Your task to perform on an android device: Open Chrome and go to the settings page Image 0: 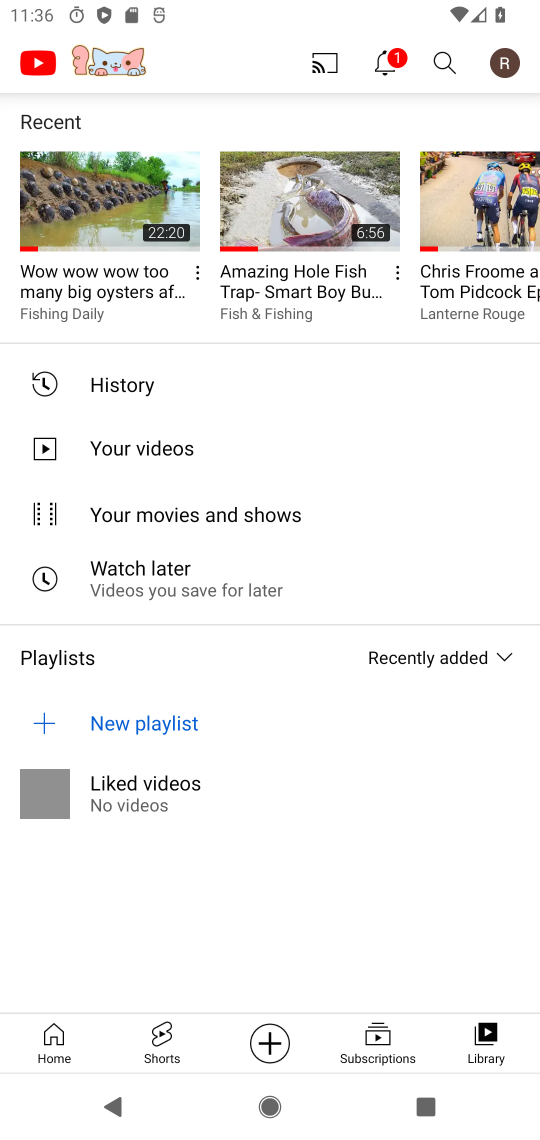
Step 0: press home button
Your task to perform on an android device: Open Chrome and go to the settings page Image 1: 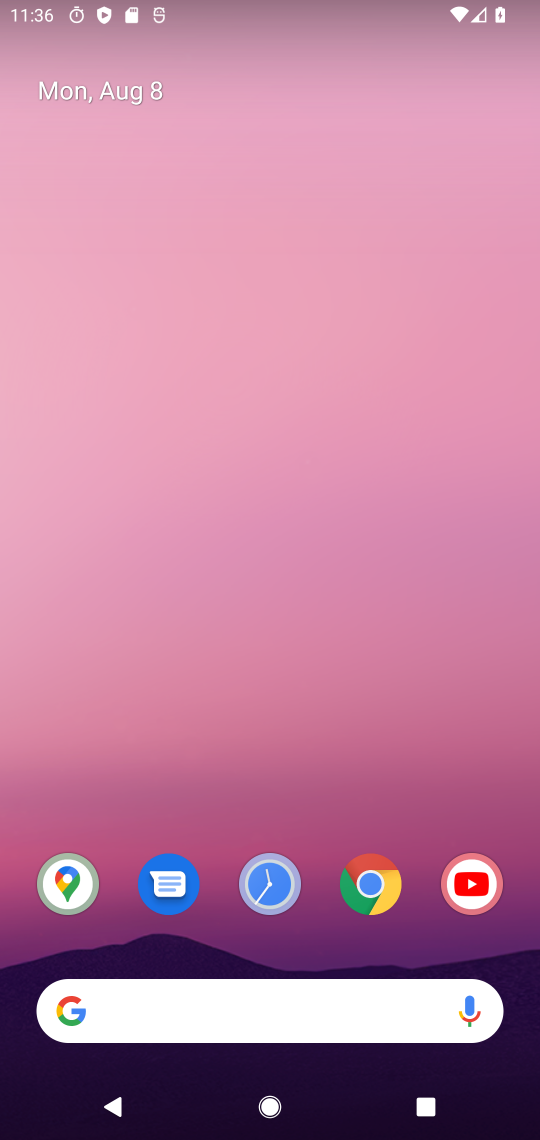
Step 1: click (370, 882)
Your task to perform on an android device: Open Chrome and go to the settings page Image 2: 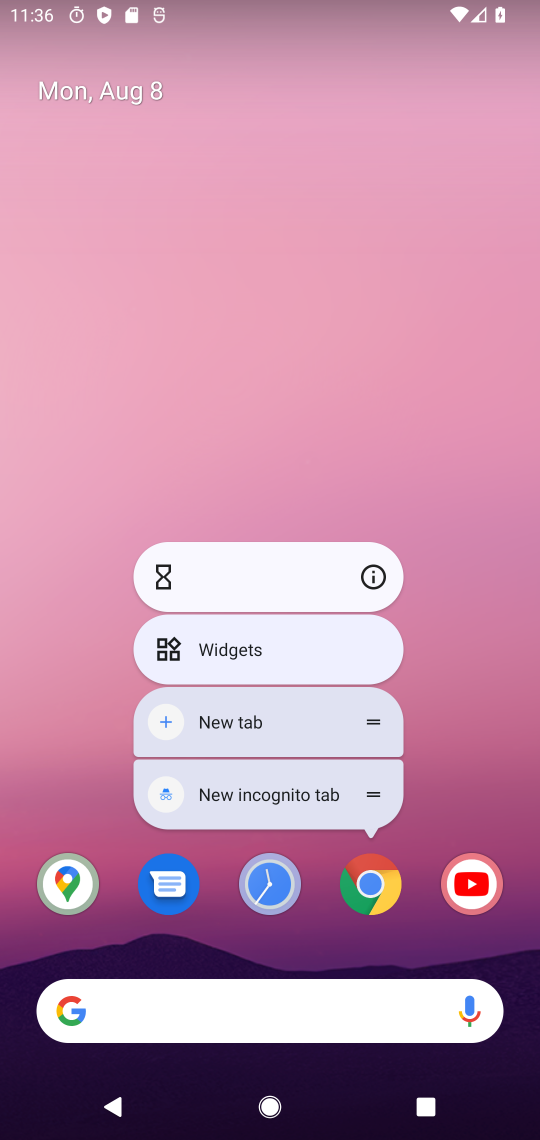
Step 2: click (370, 894)
Your task to perform on an android device: Open Chrome and go to the settings page Image 3: 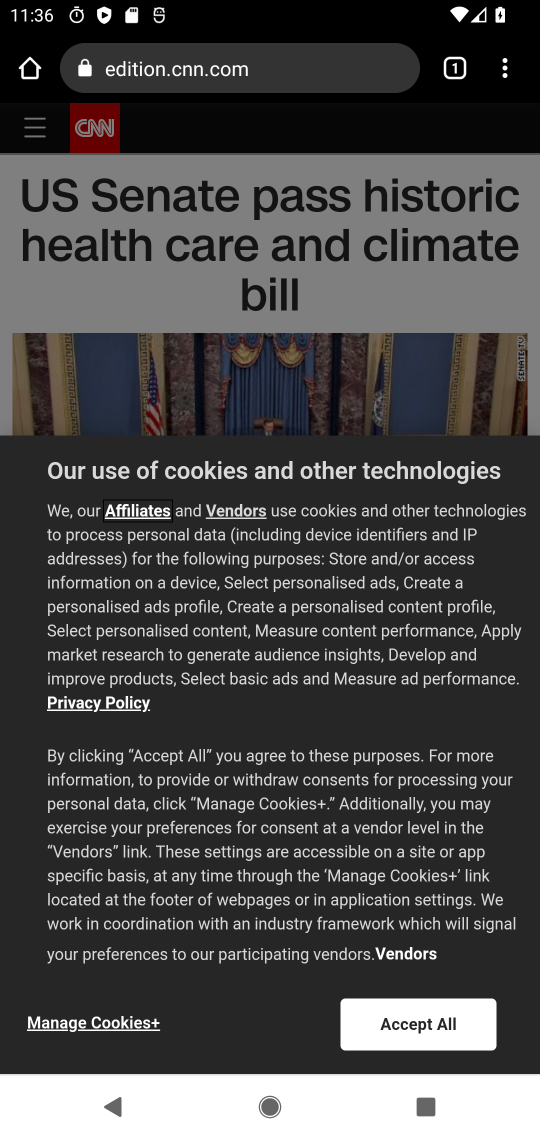
Step 3: click (505, 78)
Your task to perform on an android device: Open Chrome and go to the settings page Image 4: 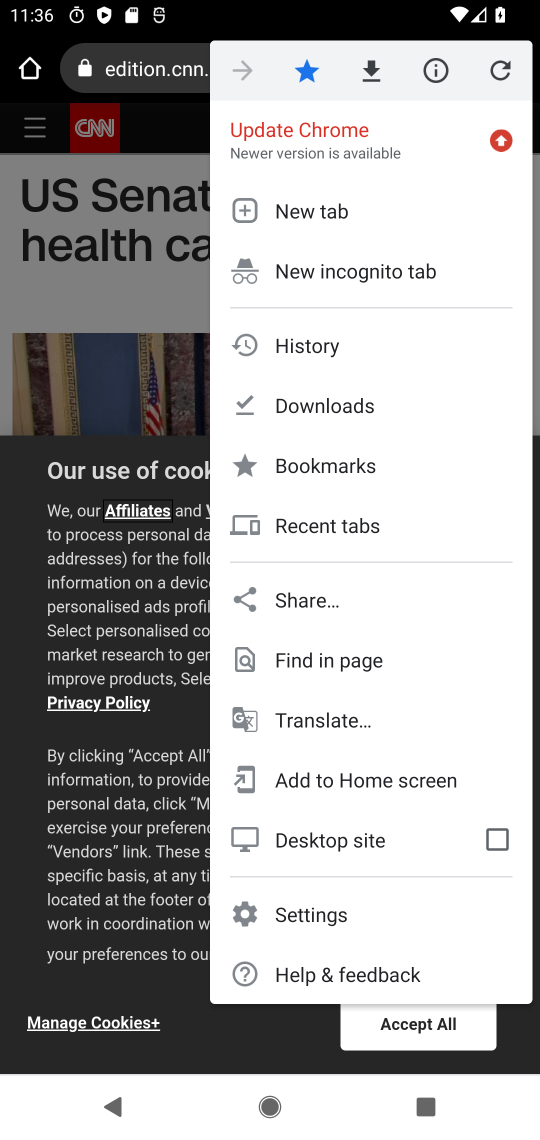
Step 4: click (297, 912)
Your task to perform on an android device: Open Chrome and go to the settings page Image 5: 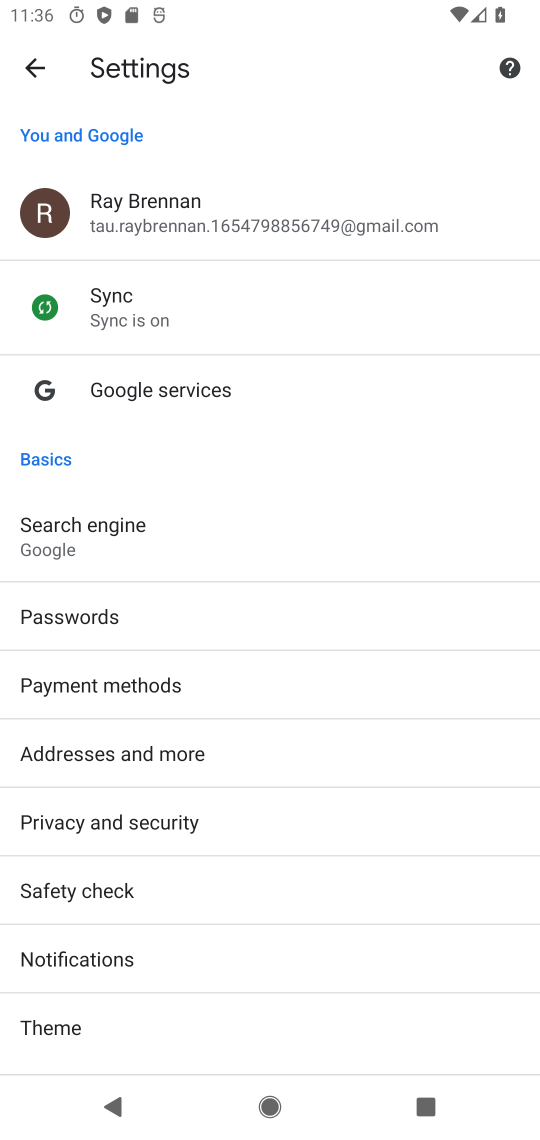
Step 5: task complete